Your task to perform on an android device: Open Chrome and go to settings Image 0: 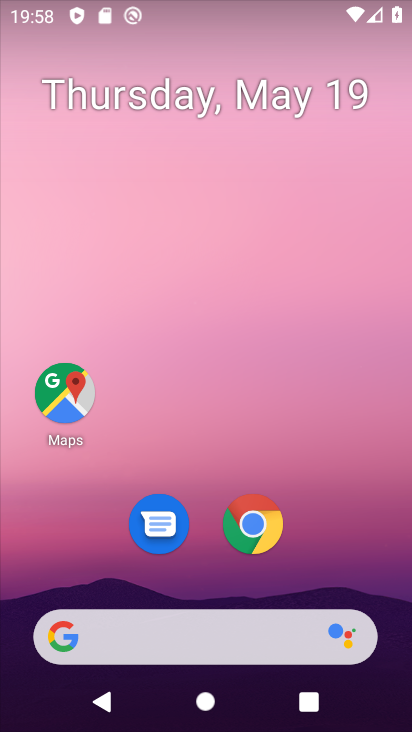
Step 0: click (257, 523)
Your task to perform on an android device: Open Chrome and go to settings Image 1: 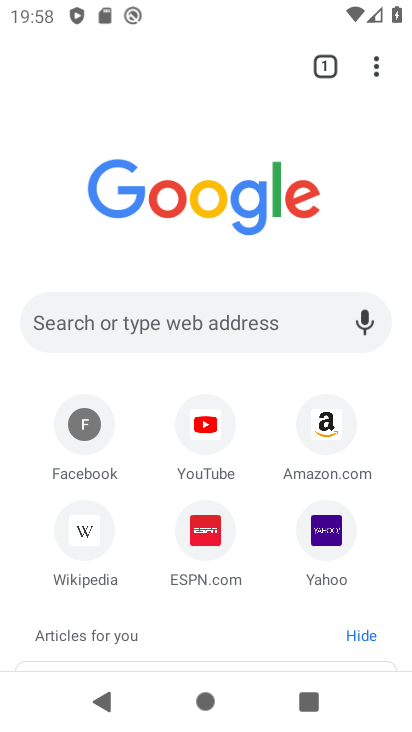
Step 1: click (368, 67)
Your task to perform on an android device: Open Chrome and go to settings Image 2: 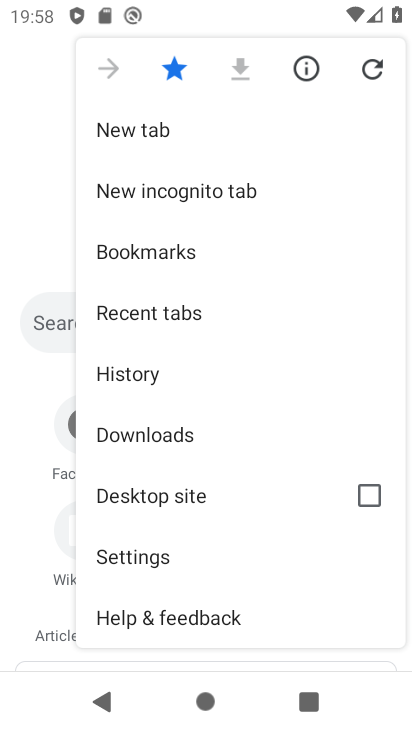
Step 2: click (180, 546)
Your task to perform on an android device: Open Chrome and go to settings Image 3: 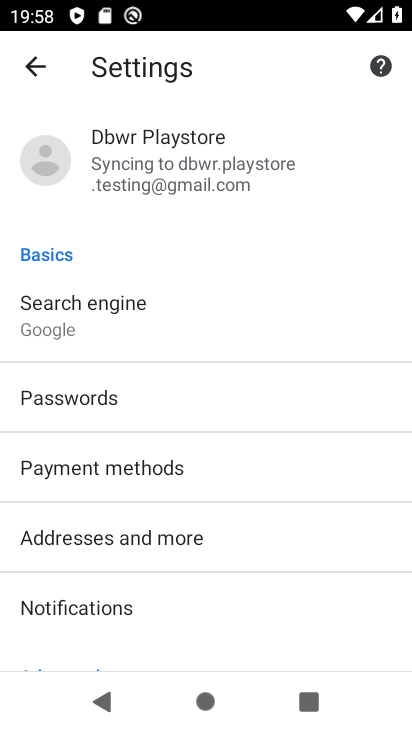
Step 3: task complete